Your task to perform on an android device: Open Maps and search for coffee Image 0: 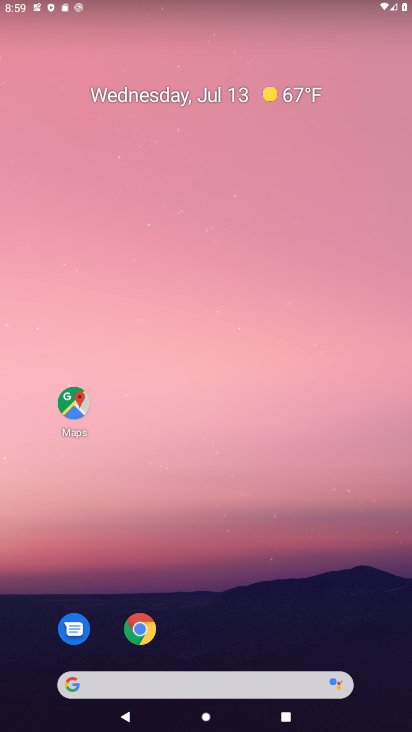
Step 0: click (78, 399)
Your task to perform on an android device: Open Maps and search for coffee Image 1: 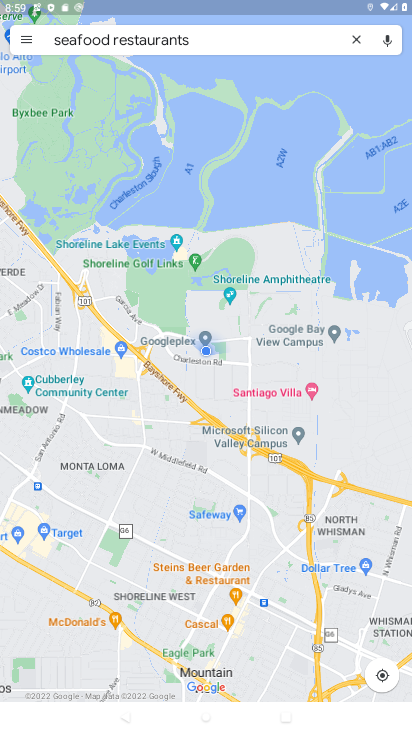
Step 1: click (356, 42)
Your task to perform on an android device: Open Maps and search for coffee Image 2: 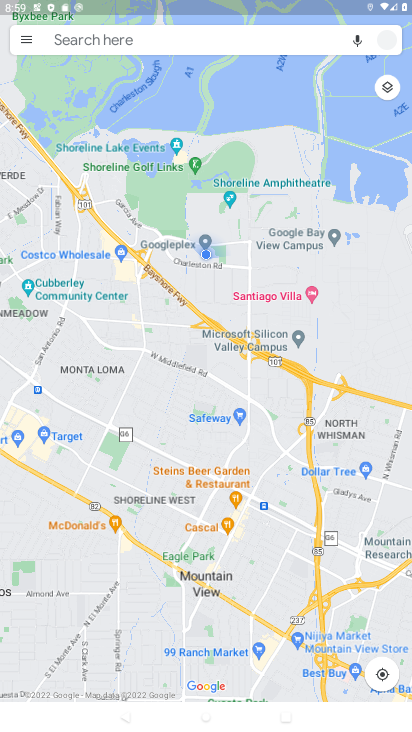
Step 2: click (211, 48)
Your task to perform on an android device: Open Maps and search for coffee Image 3: 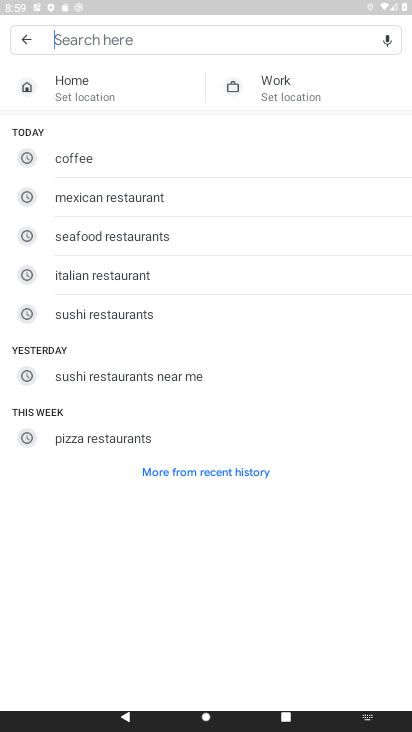
Step 3: click (130, 38)
Your task to perform on an android device: Open Maps and search for coffee Image 4: 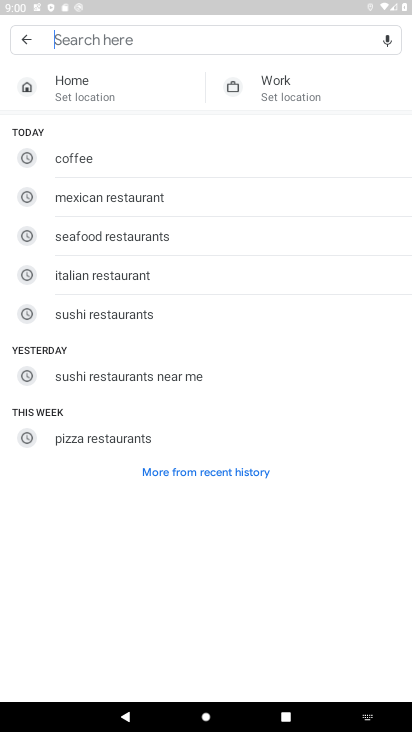
Step 4: type "coffee"
Your task to perform on an android device: Open Maps and search for coffee Image 5: 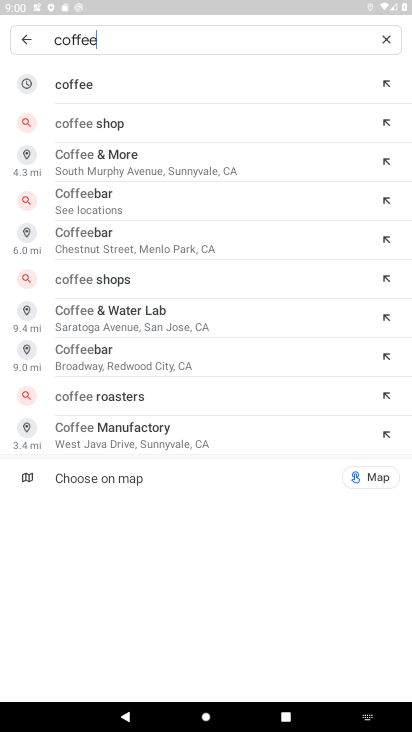
Step 5: click (100, 91)
Your task to perform on an android device: Open Maps and search for coffee Image 6: 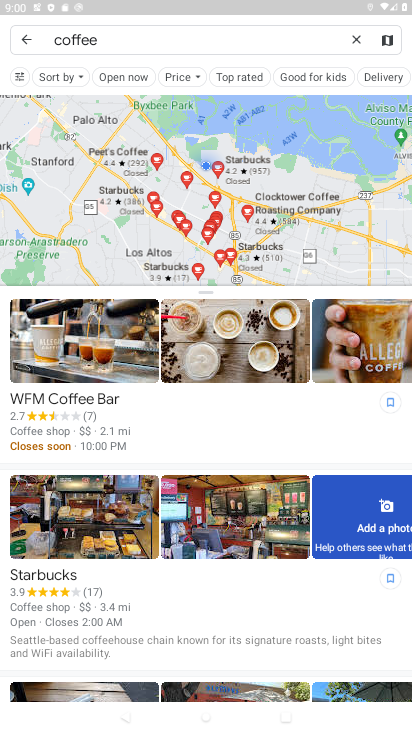
Step 6: task complete